Your task to perform on an android device: Search for corsair k70 on walmart.com, select the first entry, and add it to the cart. Image 0: 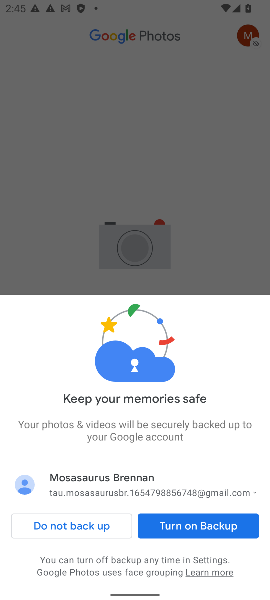
Step 0: press home button
Your task to perform on an android device: Search for corsair k70 on walmart.com, select the first entry, and add it to the cart. Image 1: 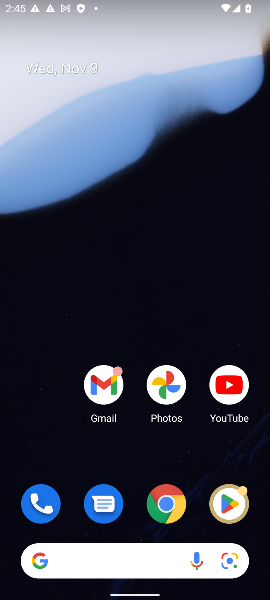
Step 1: click (161, 512)
Your task to perform on an android device: Search for corsair k70 on walmart.com, select the first entry, and add it to the cart. Image 2: 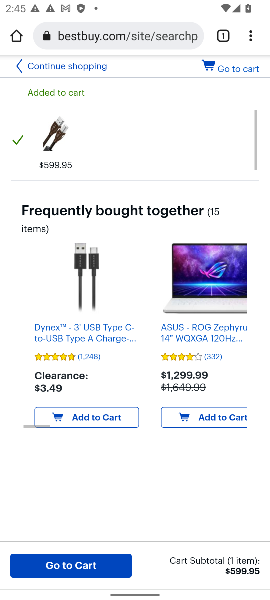
Step 2: click (142, 35)
Your task to perform on an android device: Search for corsair k70 on walmart.com, select the first entry, and add it to the cart. Image 3: 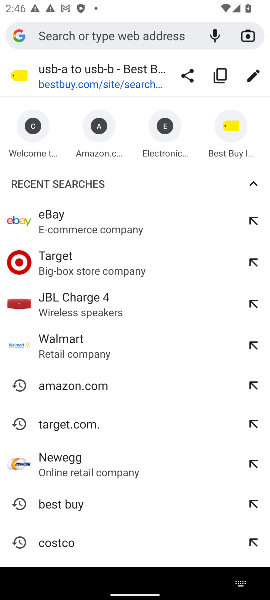
Step 3: type "walmart.com"
Your task to perform on an android device: Search for corsair k70 on walmart.com, select the first entry, and add it to the cart. Image 4: 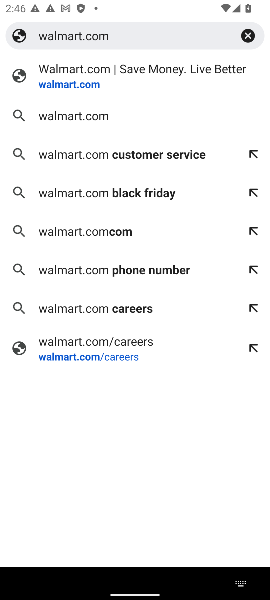
Step 4: click (92, 73)
Your task to perform on an android device: Search for corsair k70 on walmart.com, select the first entry, and add it to the cart. Image 5: 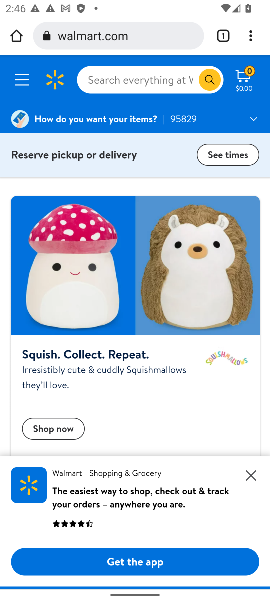
Step 5: click (113, 87)
Your task to perform on an android device: Search for corsair k70 on walmart.com, select the first entry, and add it to the cart. Image 6: 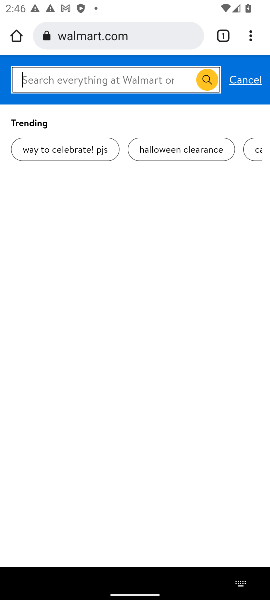
Step 6: type "corsair k70"
Your task to perform on an android device: Search for corsair k70 on walmart.com, select the first entry, and add it to the cart. Image 7: 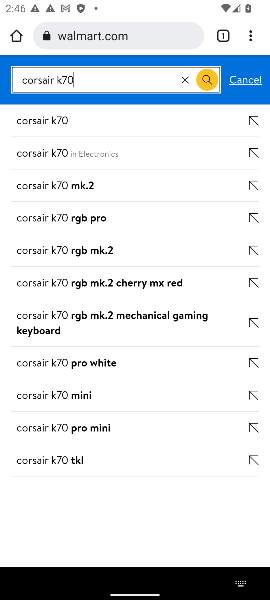
Step 7: click (50, 120)
Your task to perform on an android device: Search for corsair k70 on walmart.com, select the first entry, and add it to the cart. Image 8: 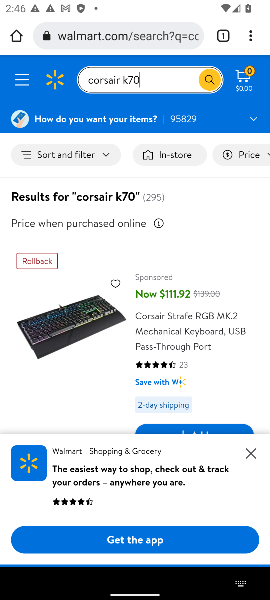
Step 8: task complete